Your task to perform on an android device: check the backup settings in the google photos Image 0: 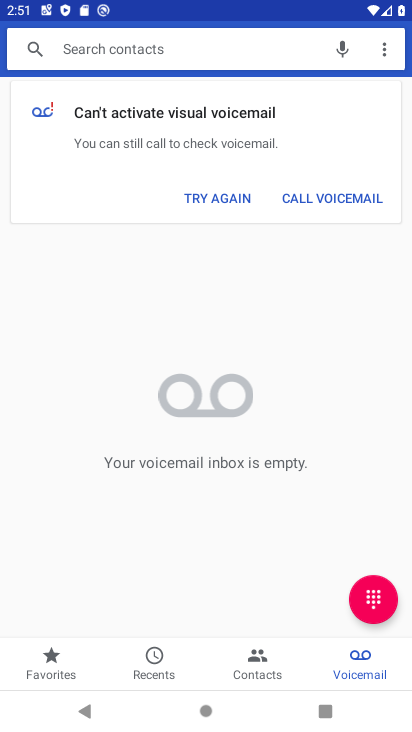
Step 0: press home button
Your task to perform on an android device: check the backup settings in the google photos Image 1: 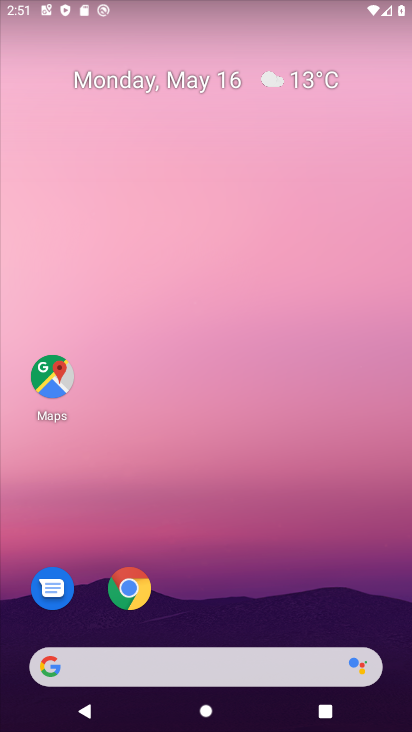
Step 1: drag from (267, 521) to (372, 2)
Your task to perform on an android device: check the backup settings in the google photos Image 2: 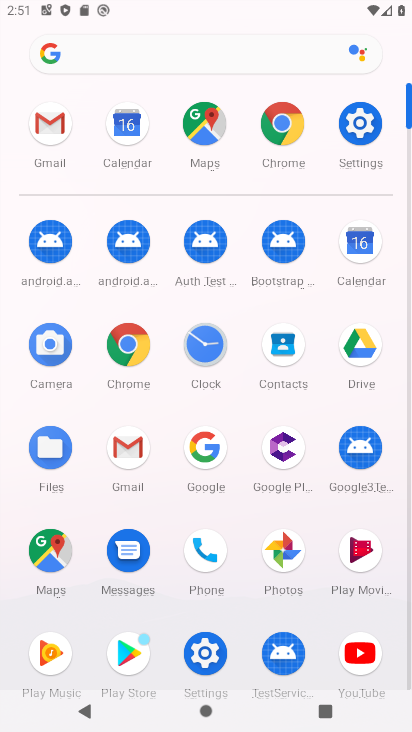
Step 2: click (288, 543)
Your task to perform on an android device: check the backup settings in the google photos Image 3: 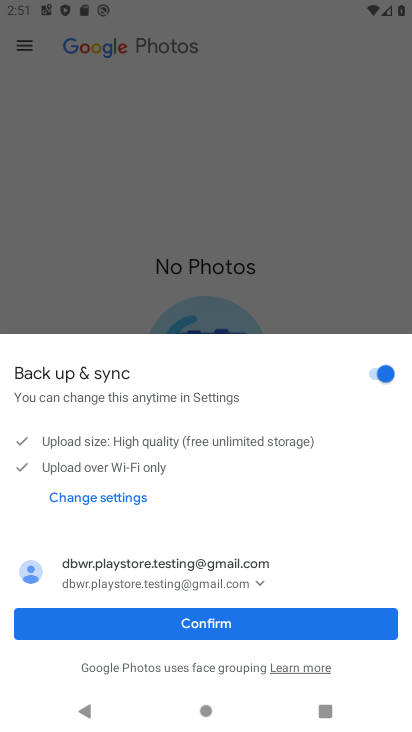
Step 3: click (171, 613)
Your task to perform on an android device: check the backup settings in the google photos Image 4: 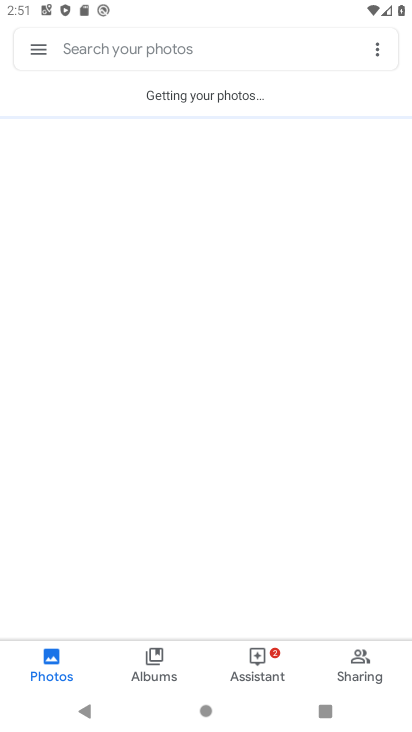
Step 4: click (33, 52)
Your task to perform on an android device: check the backup settings in the google photos Image 5: 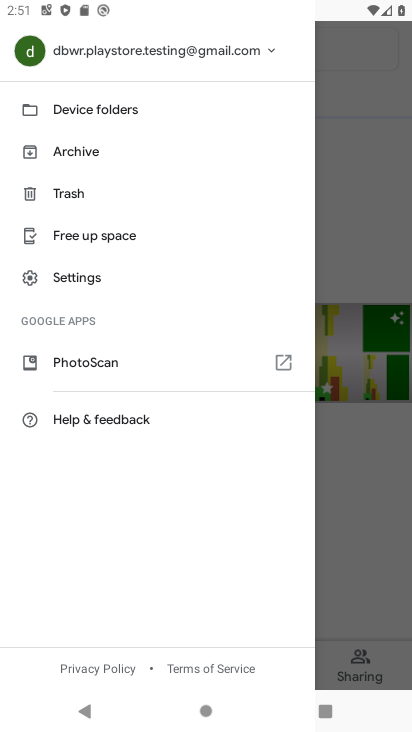
Step 5: click (112, 271)
Your task to perform on an android device: check the backup settings in the google photos Image 6: 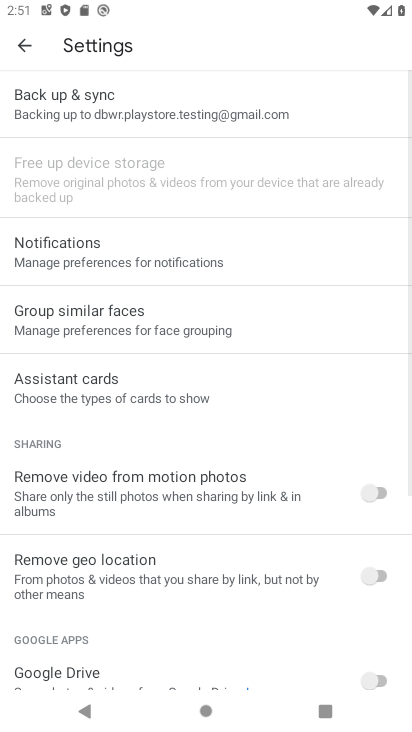
Step 6: click (156, 100)
Your task to perform on an android device: check the backup settings in the google photos Image 7: 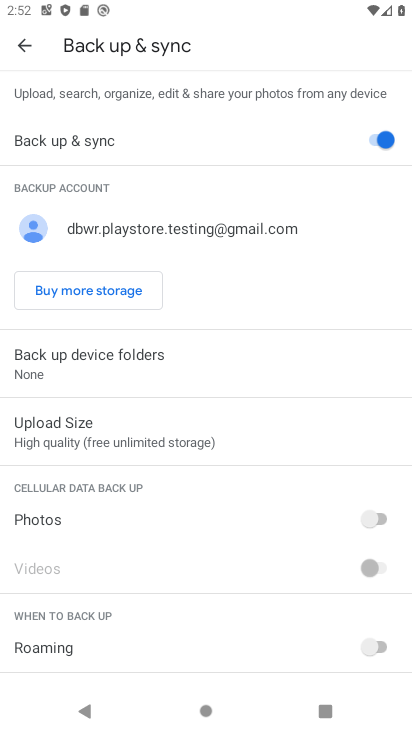
Step 7: task complete